Your task to perform on an android device: Play the last video I watched on Youtube Image 0: 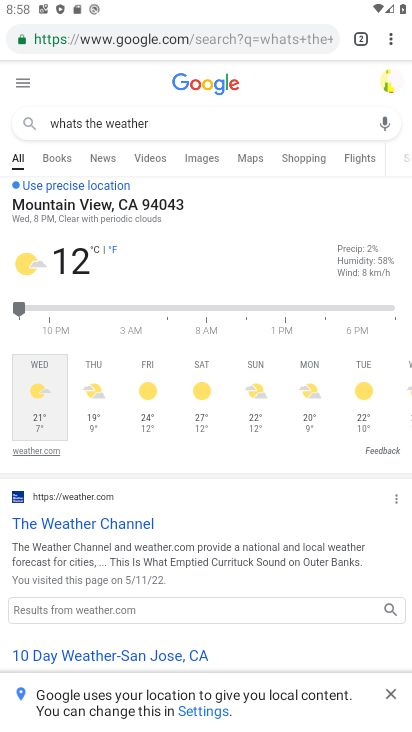
Step 0: press home button
Your task to perform on an android device: Play the last video I watched on Youtube Image 1: 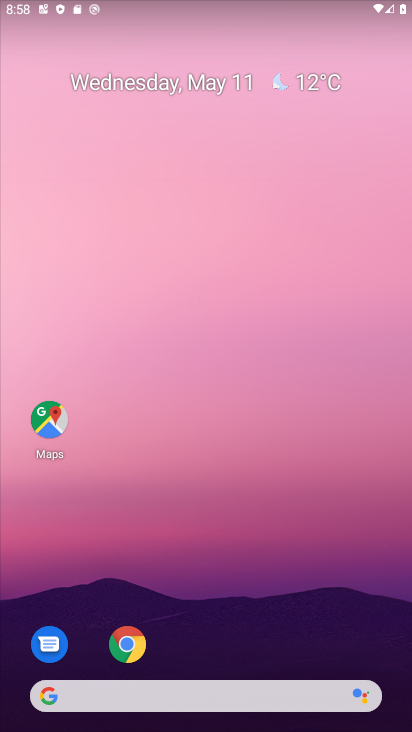
Step 1: drag from (253, 664) to (223, 244)
Your task to perform on an android device: Play the last video I watched on Youtube Image 2: 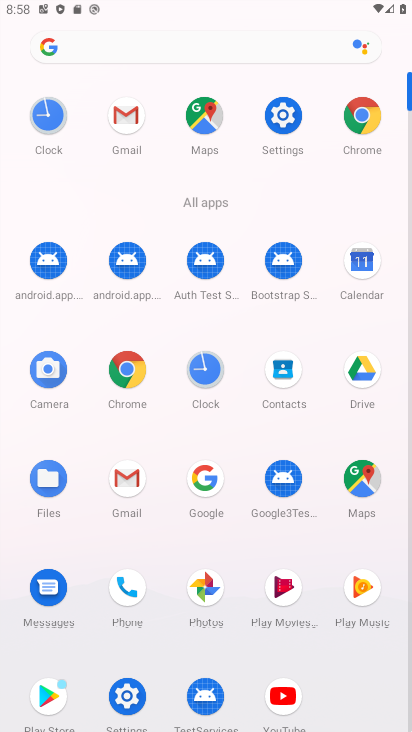
Step 2: click (285, 698)
Your task to perform on an android device: Play the last video I watched on Youtube Image 3: 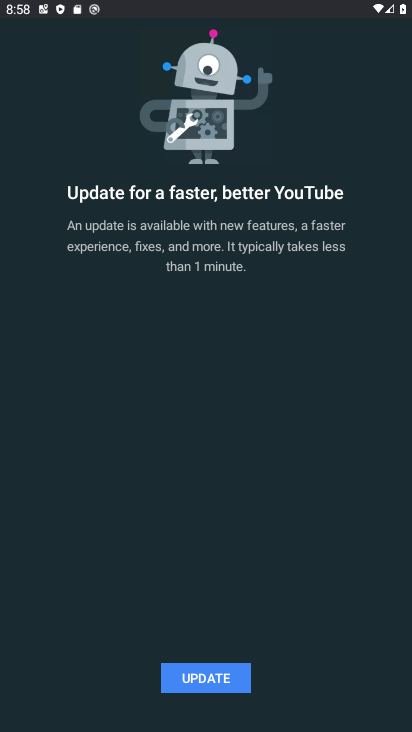
Step 3: click (224, 685)
Your task to perform on an android device: Play the last video I watched on Youtube Image 4: 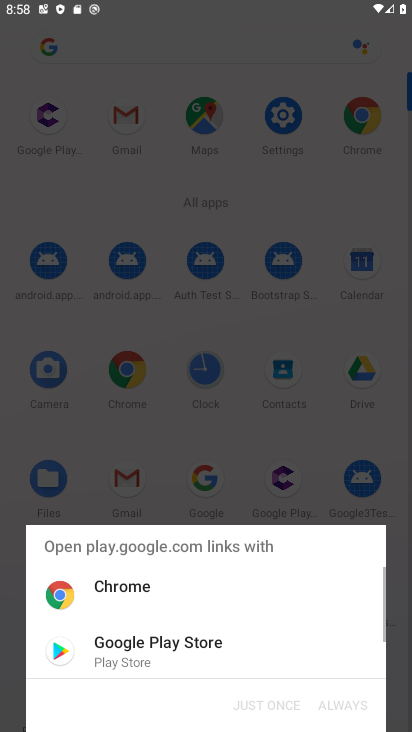
Step 4: click (154, 650)
Your task to perform on an android device: Play the last video I watched on Youtube Image 5: 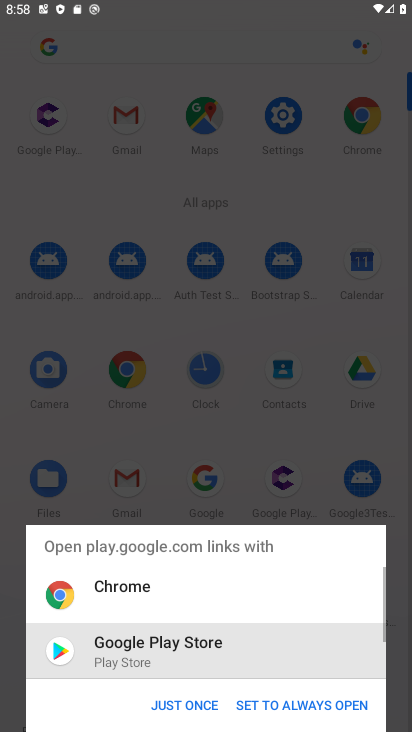
Step 5: click (234, 704)
Your task to perform on an android device: Play the last video I watched on Youtube Image 6: 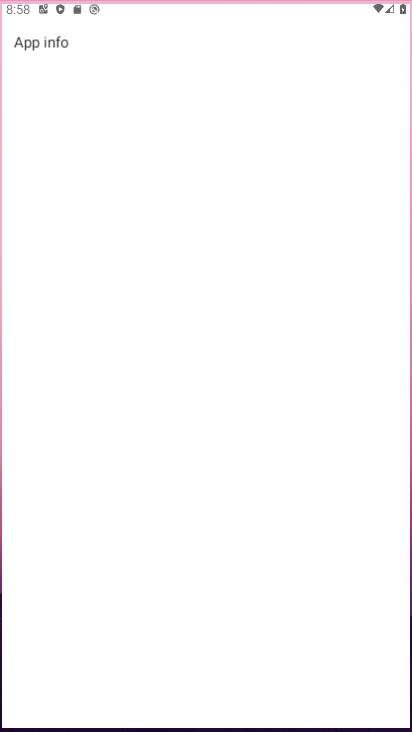
Step 6: click (207, 703)
Your task to perform on an android device: Play the last video I watched on Youtube Image 7: 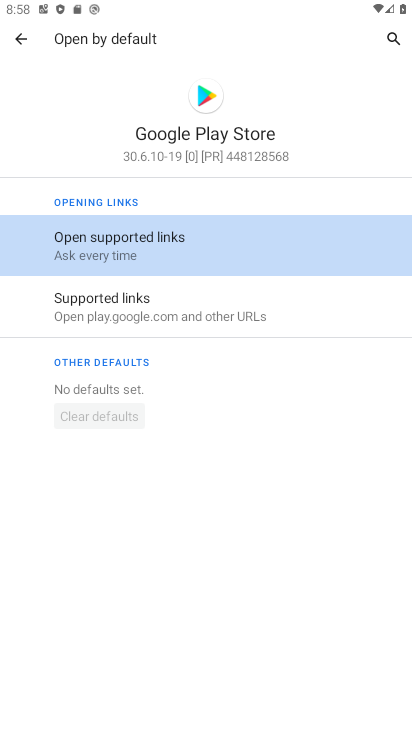
Step 7: press back button
Your task to perform on an android device: Play the last video I watched on Youtube Image 8: 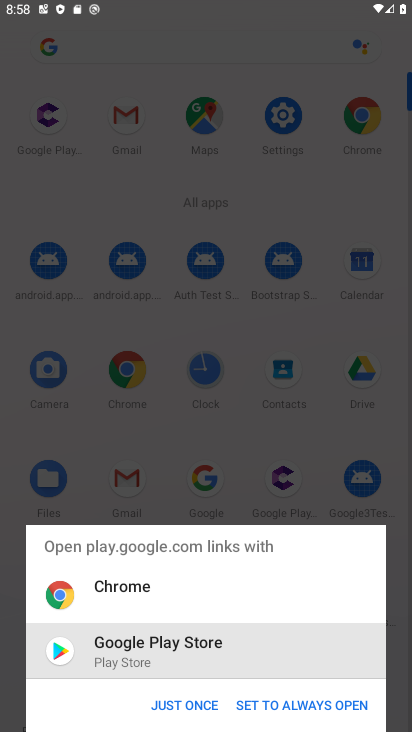
Step 8: click (184, 709)
Your task to perform on an android device: Play the last video I watched on Youtube Image 9: 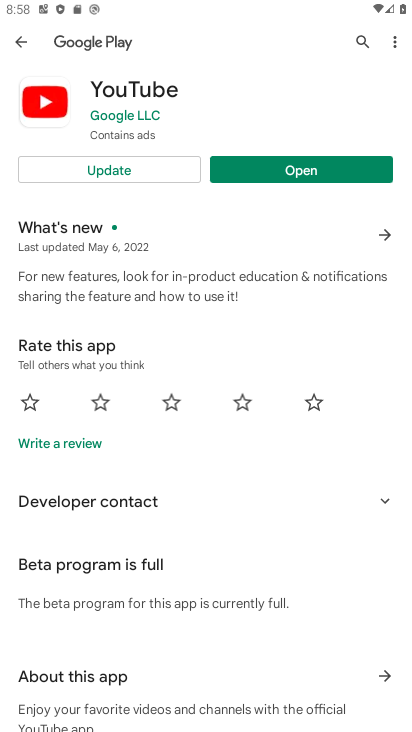
Step 9: click (122, 175)
Your task to perform on an android device: Play the last video I watched on Youtube Image 10: 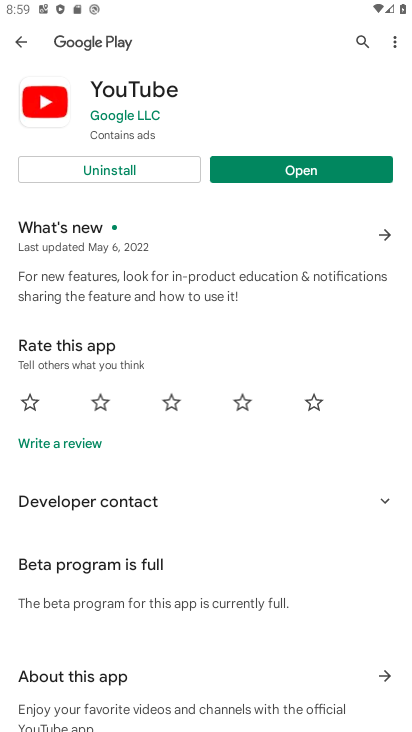
Step 10: click (258, 172)
Your task to perform on an android device: Play the last video I watched on Youtube Image 11: 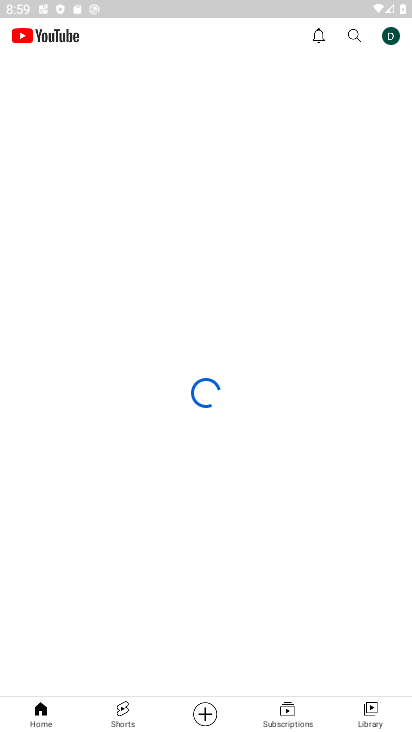
Step 11: click (360, 717)
Your task to perform on an android device: Play the last video I watched on Youtube Image 12: 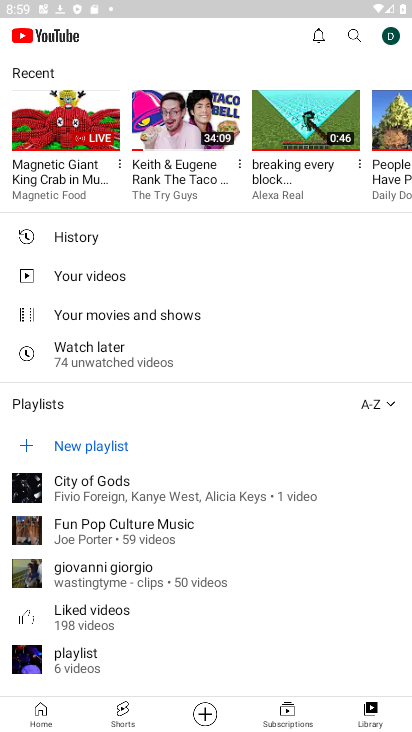
Step 12: click (76, 133)
Your task to perform on an android device: Play the last video I watched on Youtube Image 13: 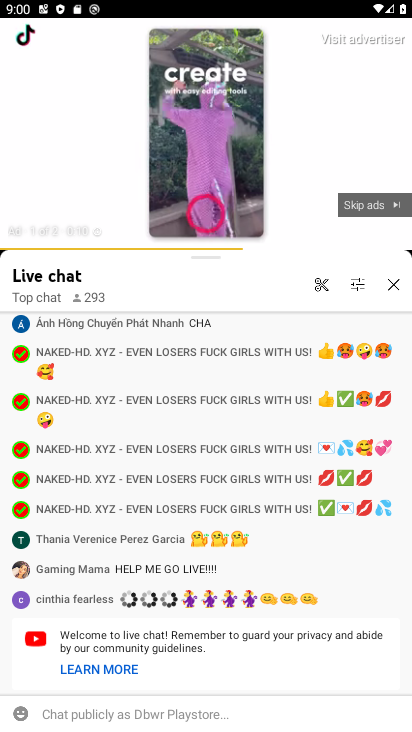
Step 13: click (348, 197)
Your task to perform on an android device: Play the last video I watched on Youtube Image 14: 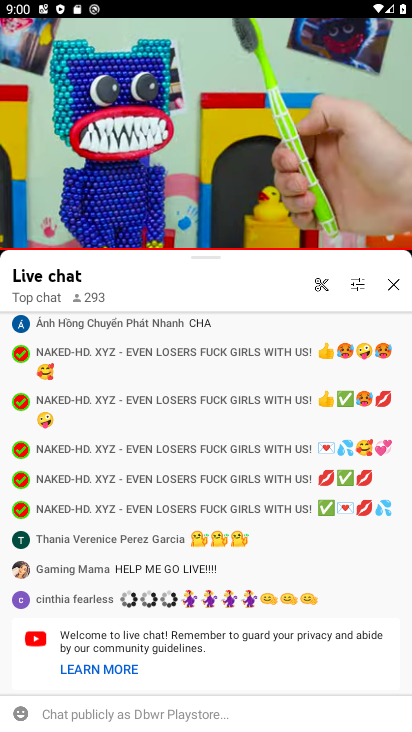
Step 14: task complete